Your task to perform on an android device: turn off notifications settings in the gmail app Image 0: 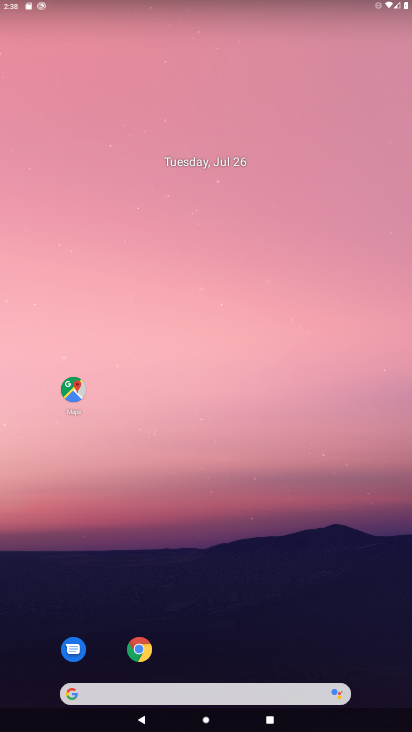
Step 0: drag from (214, 634) to (164, 258)
Your task to perform on an android device: turn off notifications settings in the gmail app Image 1: 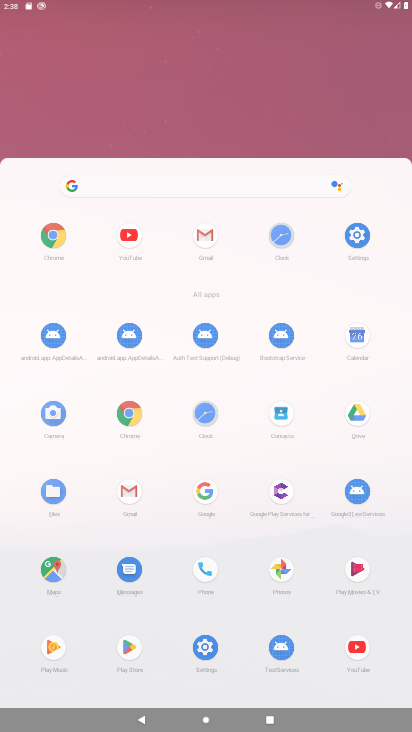
Step 1: click (164, 258)
Your task to perform on an android device: turn off notifications settings in the gmail app Image 2: 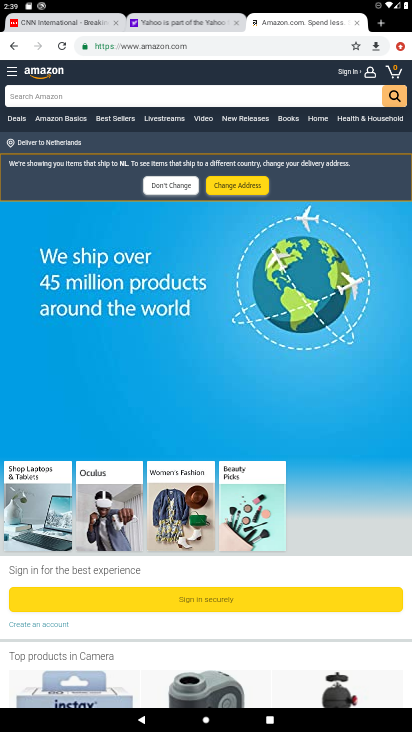
Step 2: click (396, 52)
Your task to perform on an android device: turn off notifications settings in the gmail app Image 3: 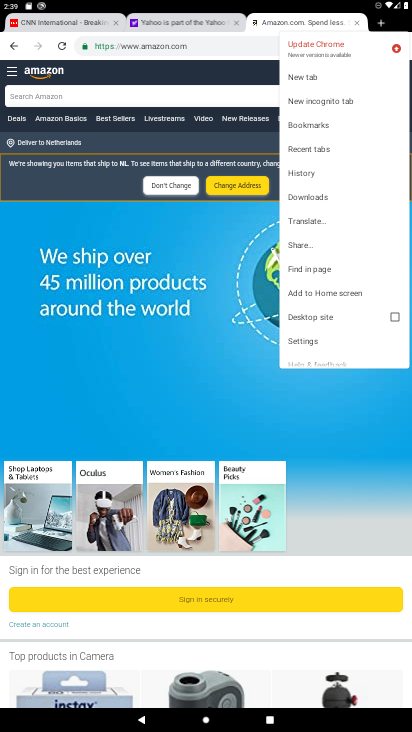
Step 3: click (313, 347)
Your task to perform on an android device: turn off notifications settings in the gmail app Image 4: 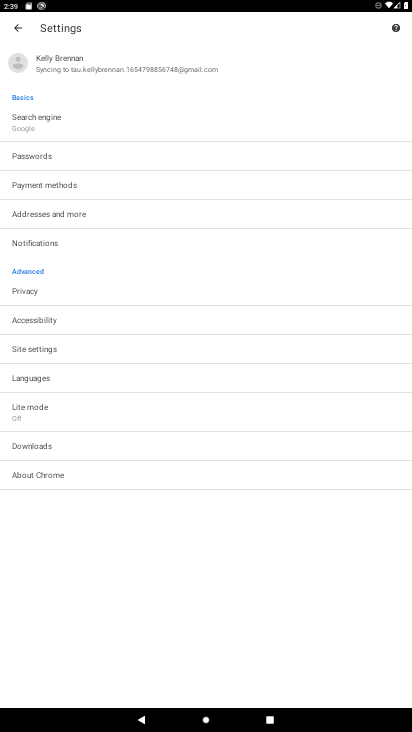
Step 4: click (59, 234)
Your task to perform on an android device: turn off notifications settings in the gmail app Image 5: 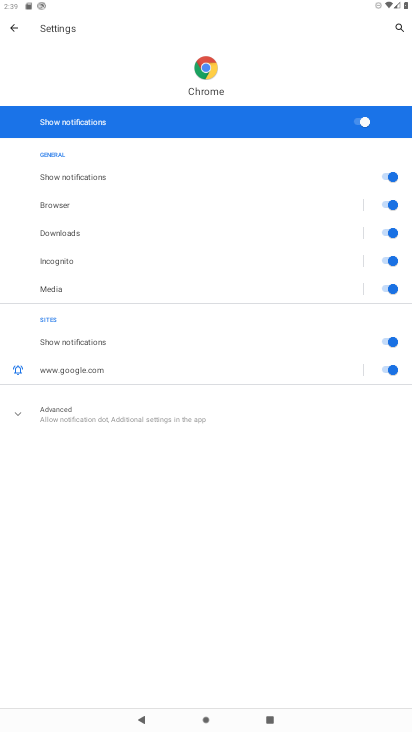
Step 5: click (10, 29)
Your task to perform on an android device: turn off notifications settings in the gmail app Image 6: 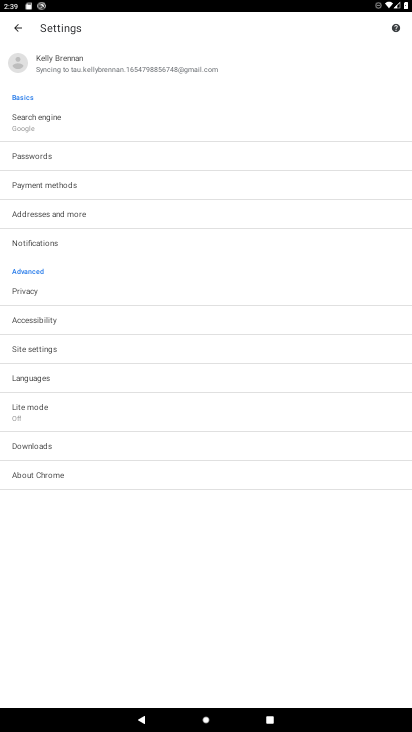
Step 6: task complete